Your task to perform on an android device: remove spam from my inbox in the gmail app Image 0: 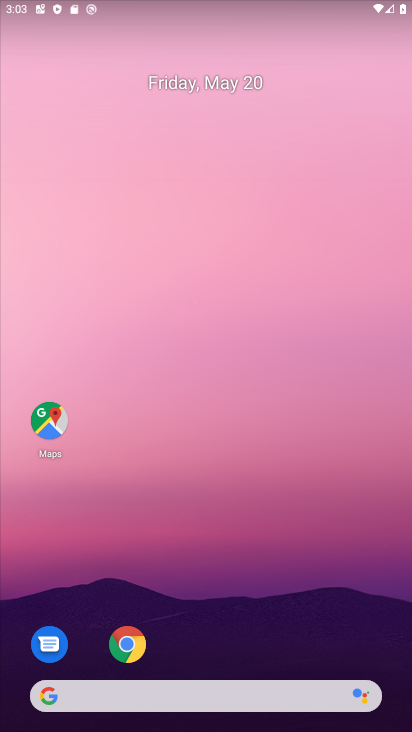
Step 0: drag from (341, 654) to (268, 266)
Your task to perform on an android device: remove spam from my inbox in the gmail app Image 1: 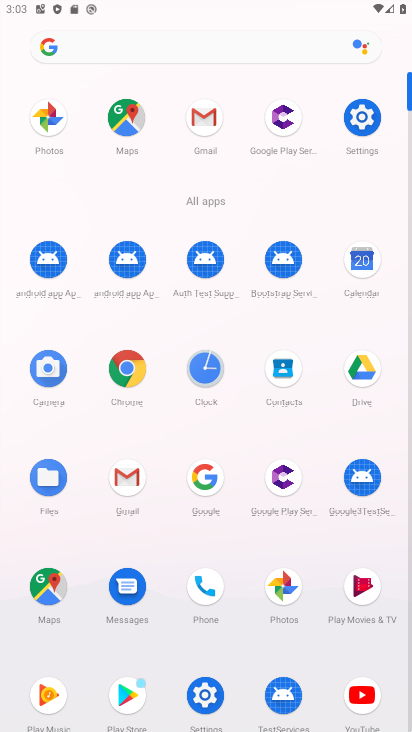
Step 1: click (198, 150)
Your task to perform on an android device: remove spam from my inbox in the gmail app Image 2: 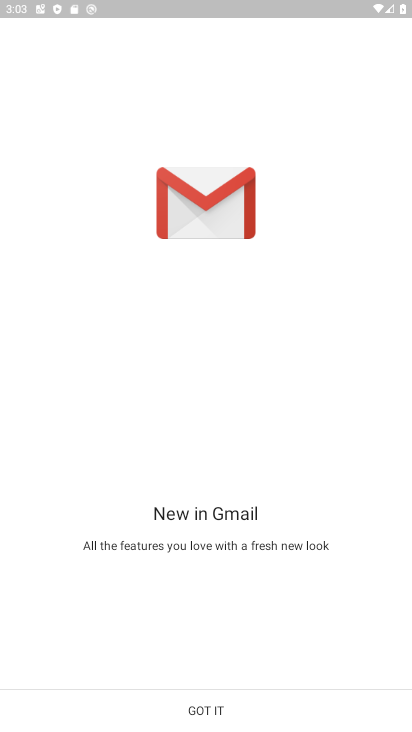
Step 2: click (243, 723)
Your task to perform on an android device: remove spam from my inbox in the gmail app Image 3: 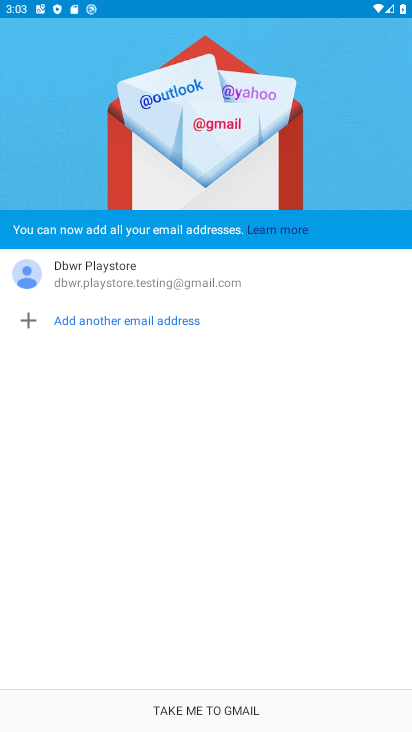
Step 3: click (243, 723)
Your task to perform on an android device: remove spam from my inbox in the gmail app Image 4: 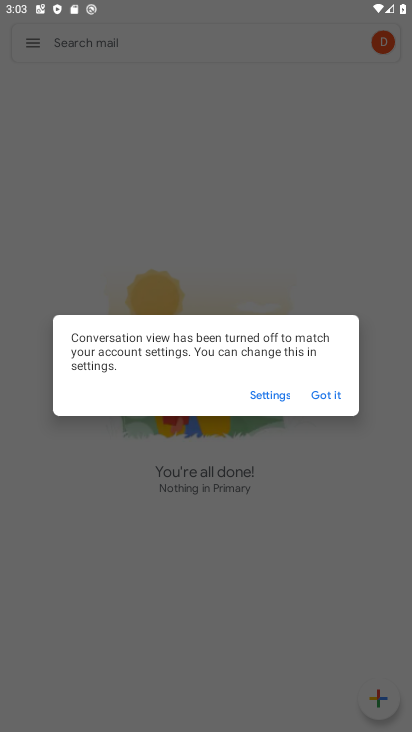
Step 4: click (340, 404)
Your task to perform on an android device: remove spam from my inbox in the gmail app Image 5: 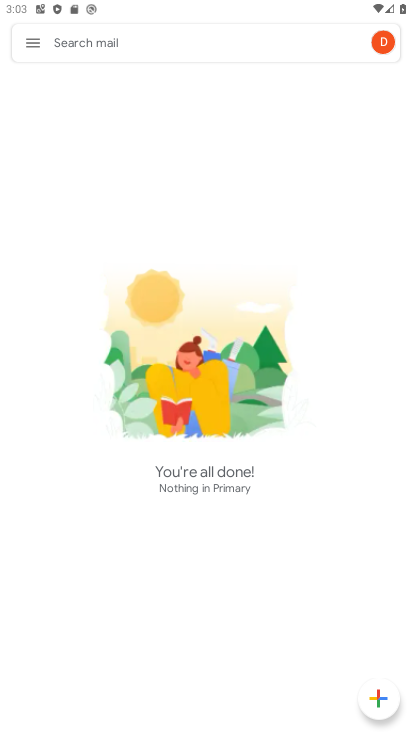
Step 5: click (53, 36)
Your task to perform on an android device: remove spam from my inbox in the gmail app Image 6: 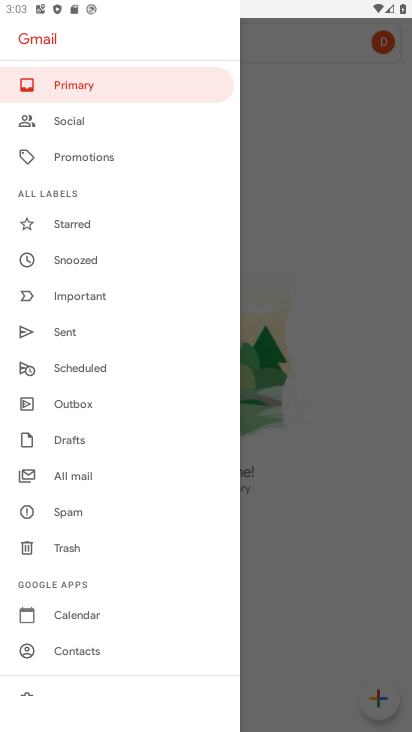
Step 6: click (123, 471)
Your task to perform on an android device: remove spam from my inbox in the gmail app Image 7: 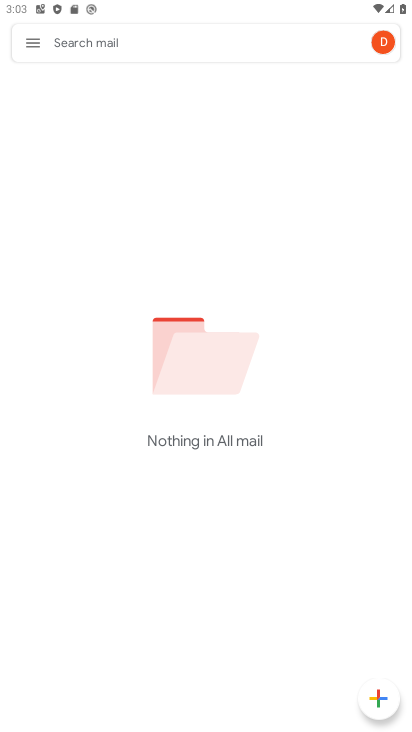
Step 7: task complete